Your task to perform on an android device: turn on sleep mode Image 0: 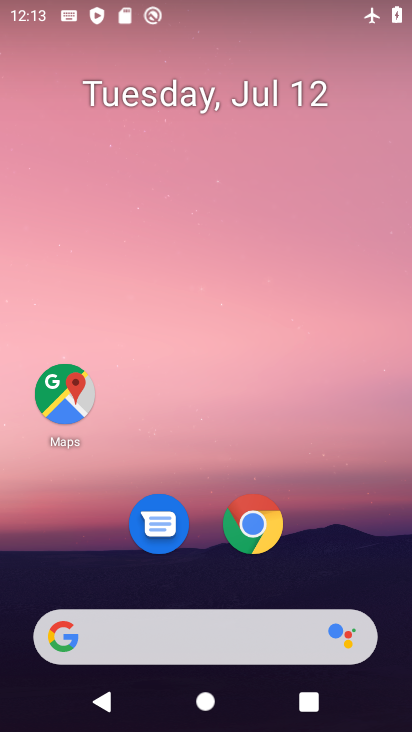
Step 0: click (224, 644)
Your task to perform on an android device: turn on sleep mode Image 1: 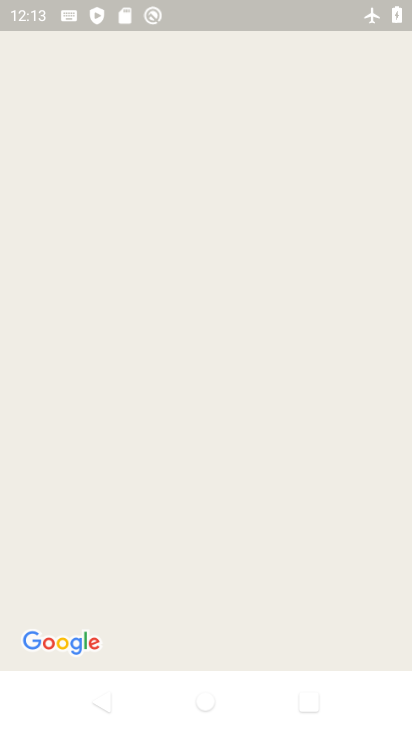
Step 1: press home button
Your task to perform on an android device: turn on sleep mode Image 2: 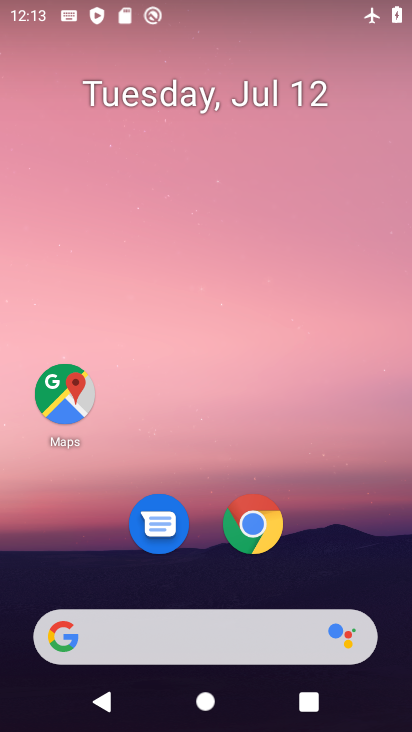
Step 2: drag from (321, 541) to (213, 1)
Your task to perform on an android device: turn on sleep mode Image 3: 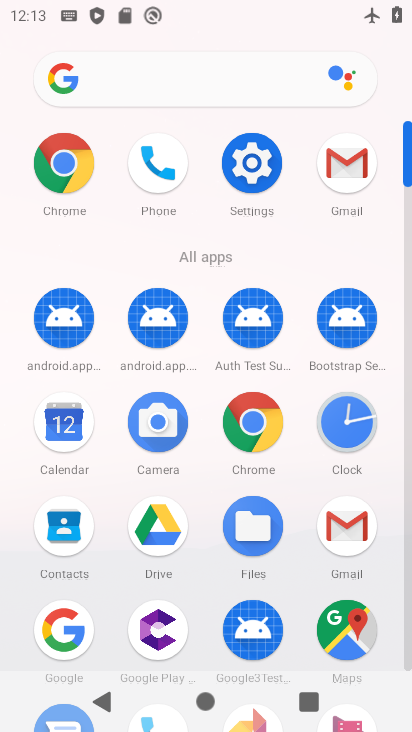
Step 3: click (258, 176)
Your task to perform on an android device: turn on sleep mode Image 4: 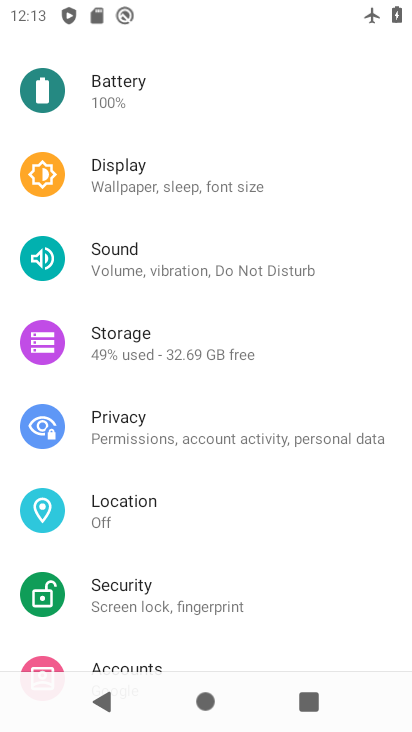
Step 4: click (220, 178)
Your task to perform on an android device: turn on sleep mode Image 5: 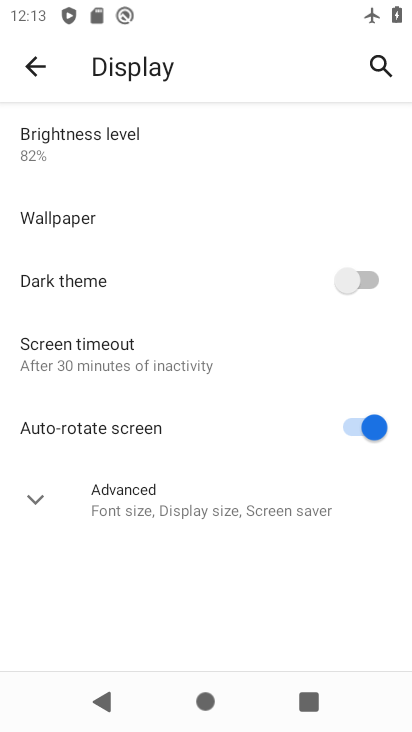
Step 5: click (34, 497)
Your task to perform on an android device: turn on sleep mode Image 6: 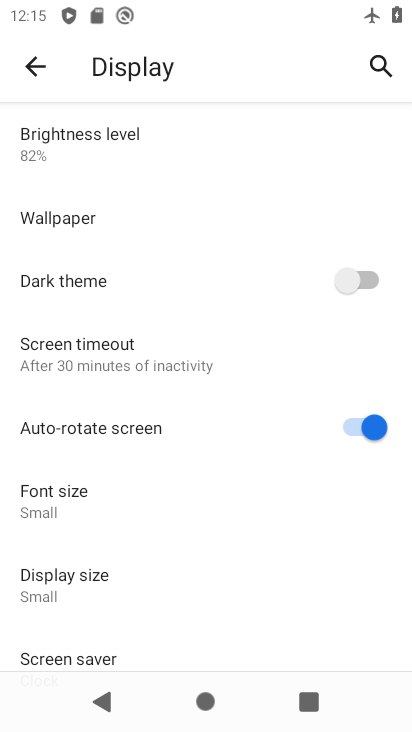
Step 6: task complete